Your task to perform on an android device: Open calendar and show me the fourth week of next month Image 0: 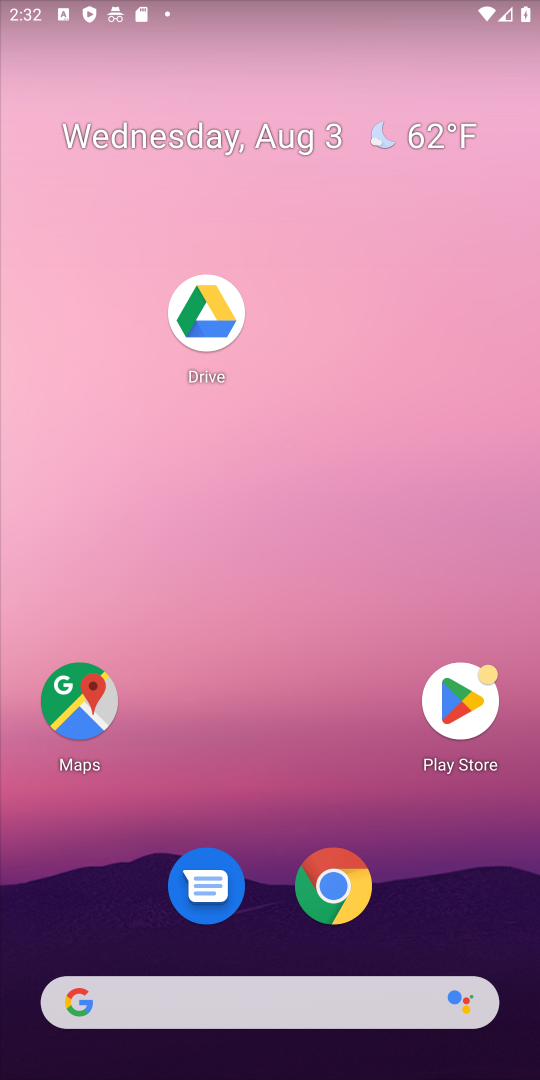
Step 0: drag from (252, 471) to (217, 19)
Your task to perform on an android device: Open calendar and show me the fourth week of next month Image 1: 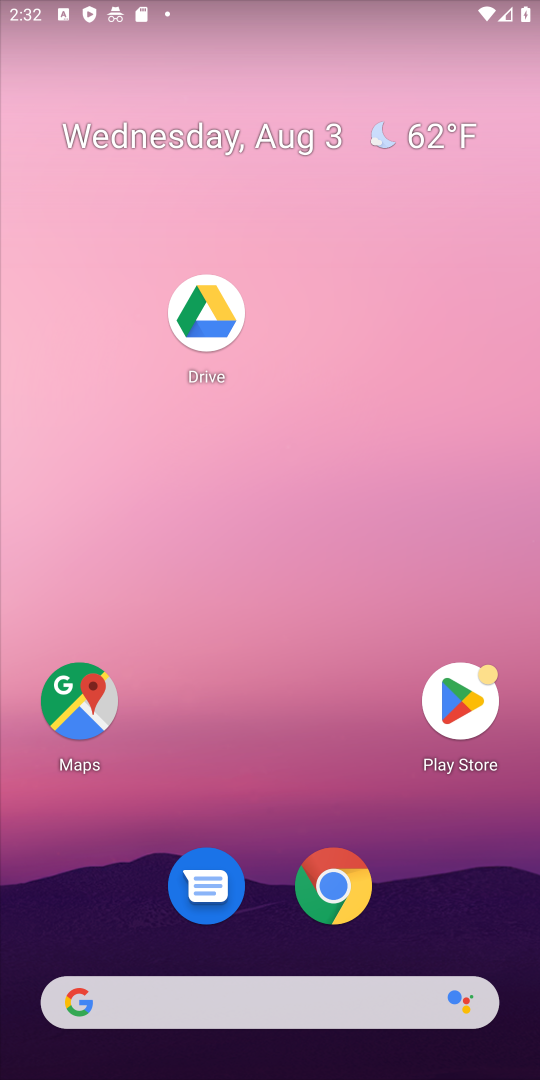
Step 1: drag from (383, 917) to (388, 179)
Your task to perform on an android device: Open calendar and show me the fourth week of next month Image 2: 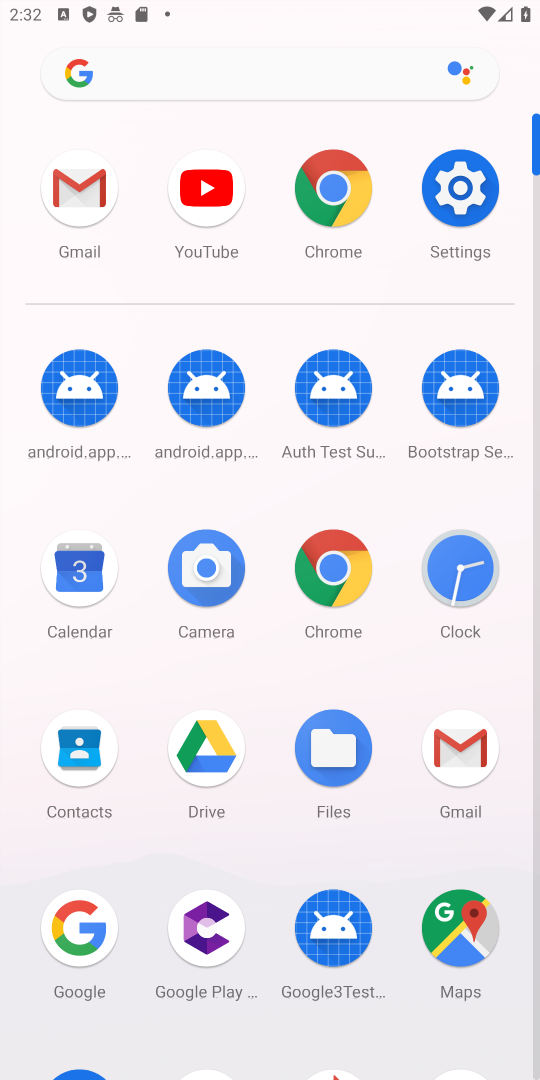
Step 2: click (65, 588)
Your task to perform on an android device: Open calendar and show me the fourth week of next month Image 3: 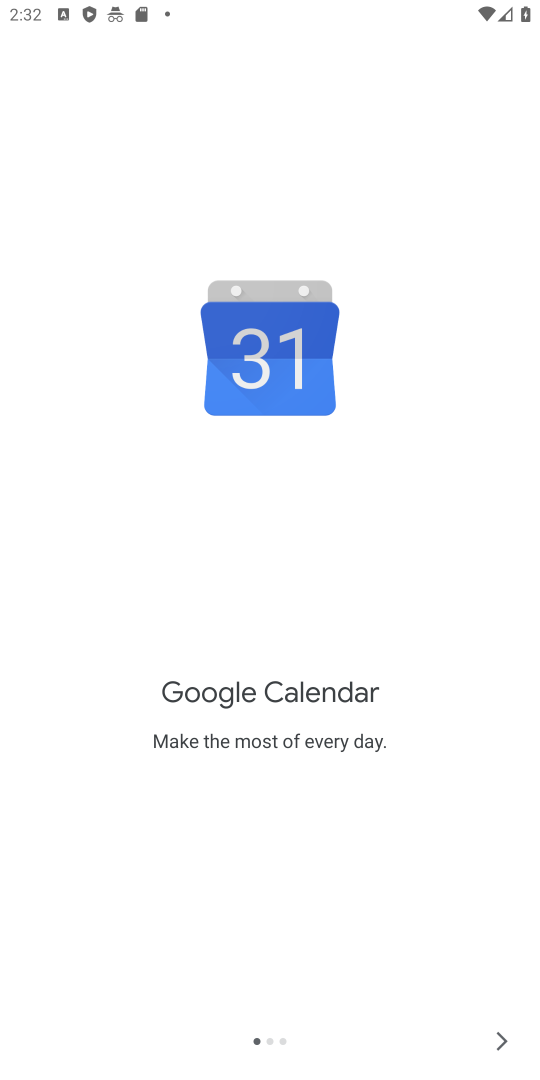
Step 3: click (498, 1024)
Your task to perform on an android device: Open calendar and show me the fourth week of next month Image 4: 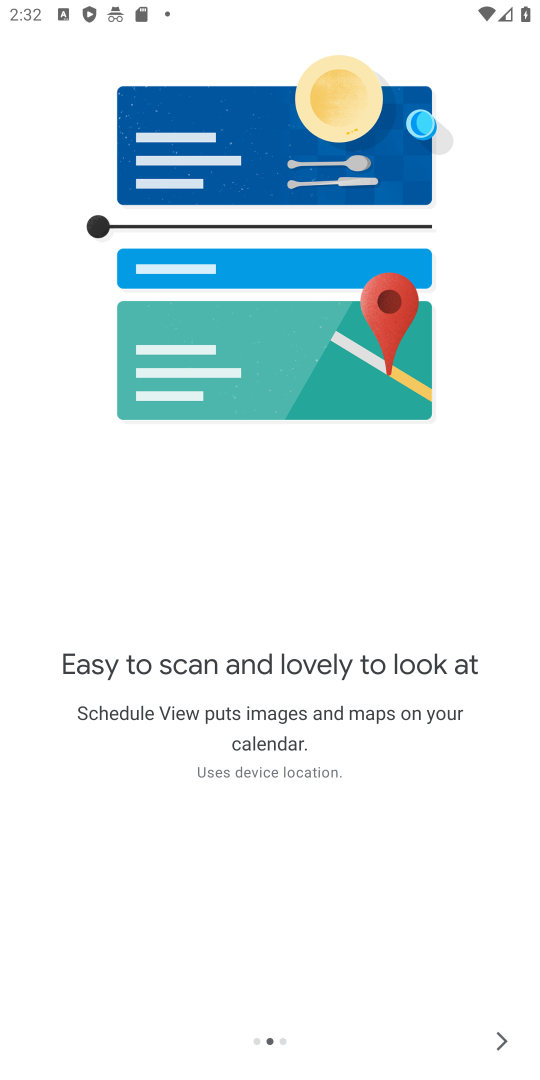
Step 4: click (503, 1046)
Your task to perform on an android device: Open calendar and show me the fourth week of next month Image 5: 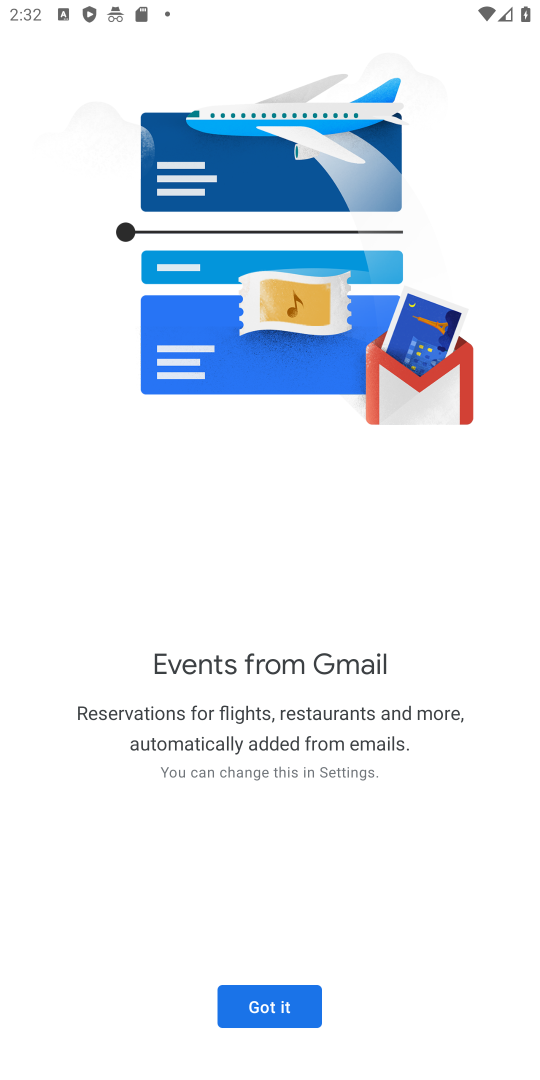
Step 5: click (271, 1009)
Your task to perform on an android device: Open calendar and show me the fourth week of next month Image 6: 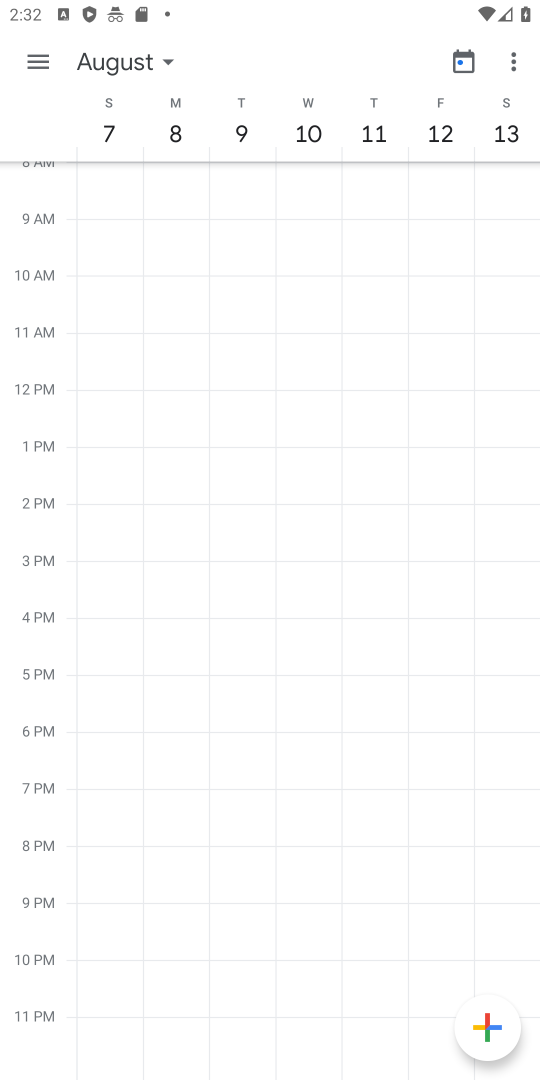
Step 6: click (163, 61)
Your task to perform on an android device: Open calendar and show me the fourth week of next month Image 7: 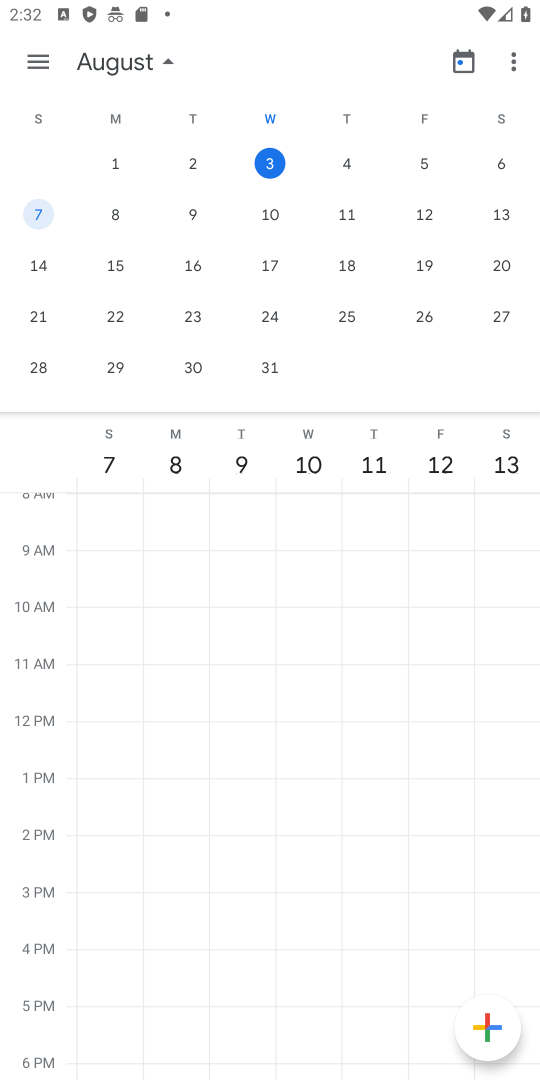
Step 7: click (276, 312)
Your task to perform on an android device: Open calendar and show me the fourth week of next month Image 8: 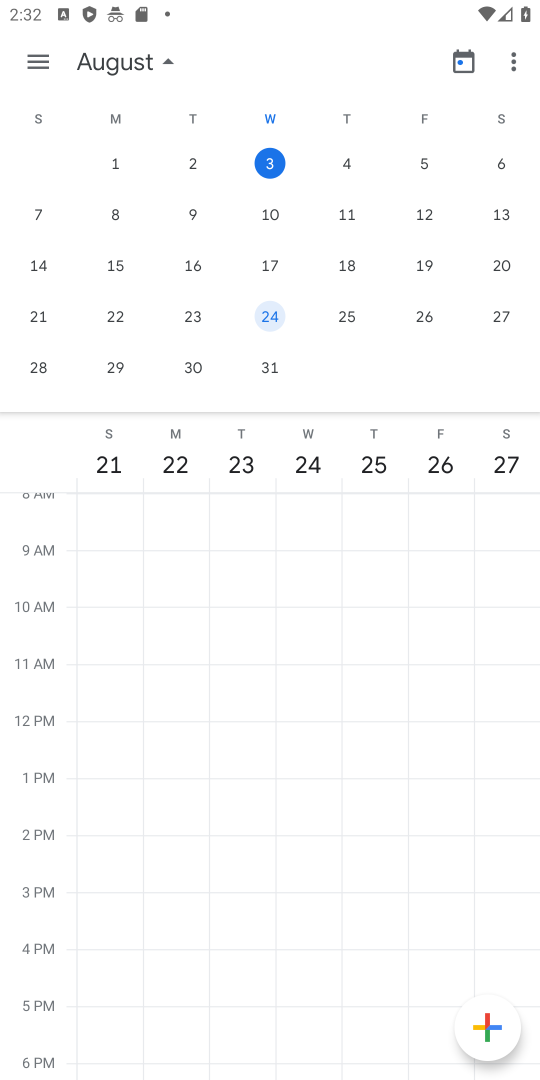
Step 8: task complete